Your task to perform on an android device: see tabs open on other devices in the chrome app Image 0: 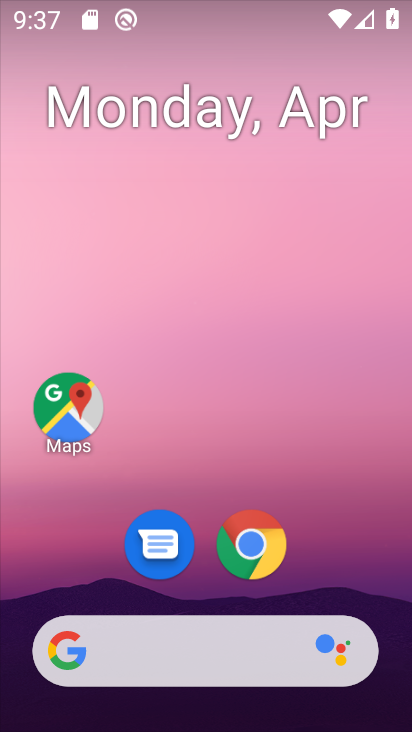
Step 0: click (251, 538)
Your task to perform on an android device: see tabs open on other devices in the chrome app Image 1: 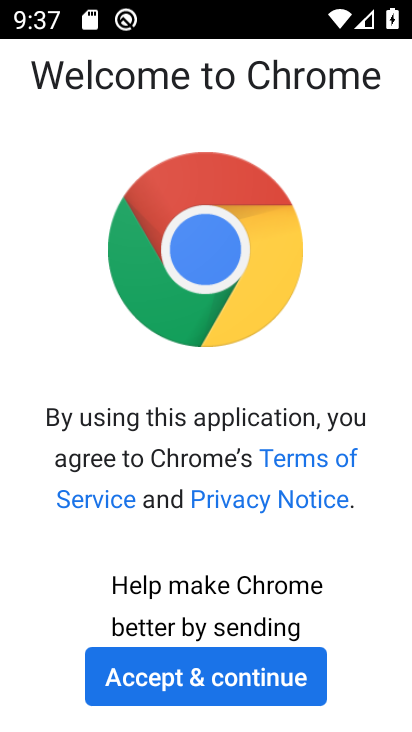
Step 1: click (202, 679)
Your task to perform on an android device: see tabs open on other devices in the chrome app Image 2: 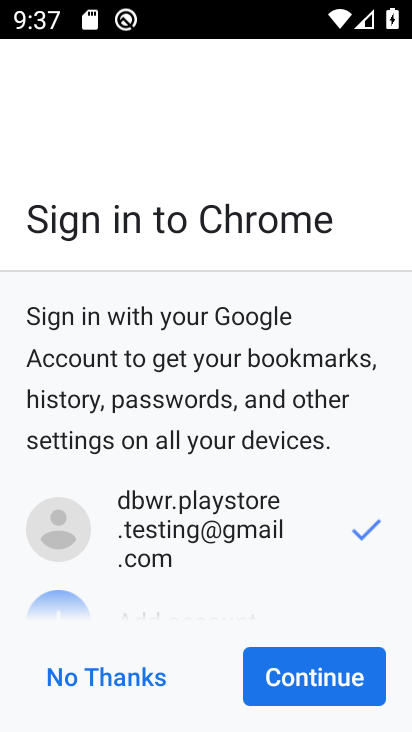
Step 2: click (324, 674)
Your task to perform on an android device: see tabs open on other devices in the chrome app Image 3: 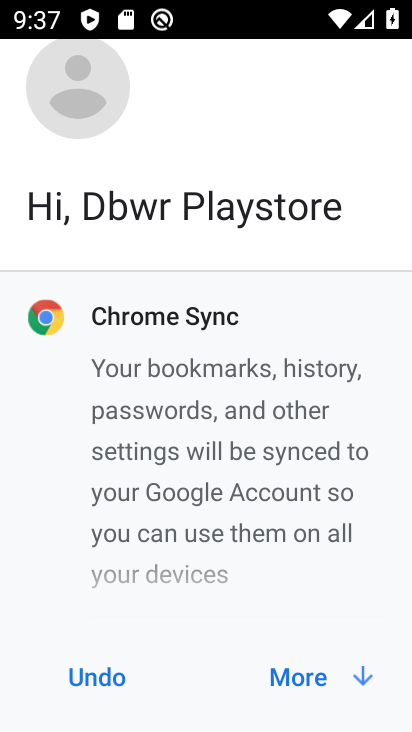
Step 3: click (324, 674)
Your task to perform on an android device: see tabs open on other devices in the chrome app Image 4: 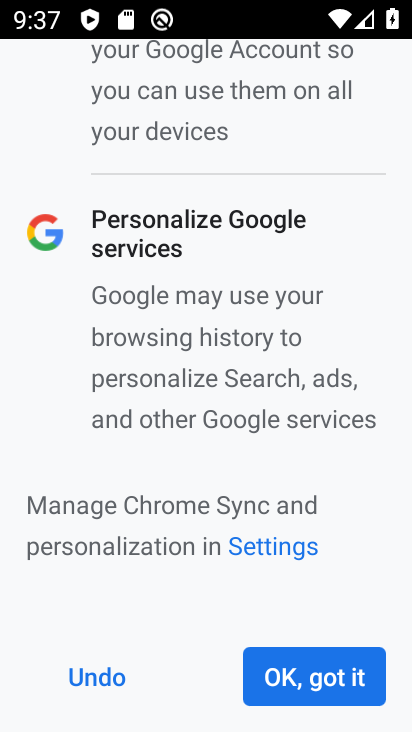
Step 4: click (324, 674)
Your task to perform on an android device: see tabs open on other devices in the chrome app Image 5: 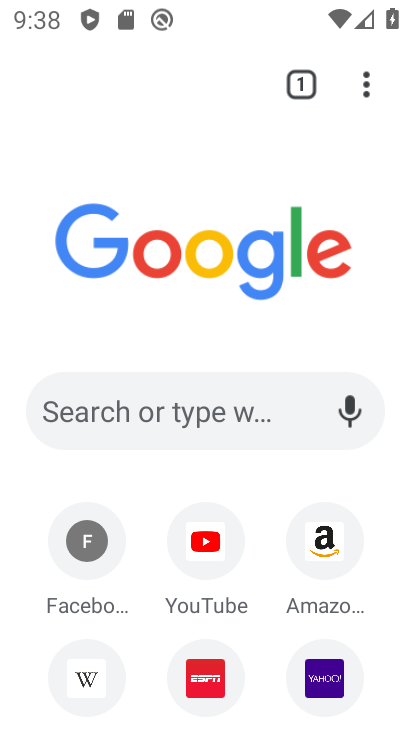
Step 5: click (366, 78)
Your task to perform on an android device: see tabs open on other devices in the chrome app Image 6: 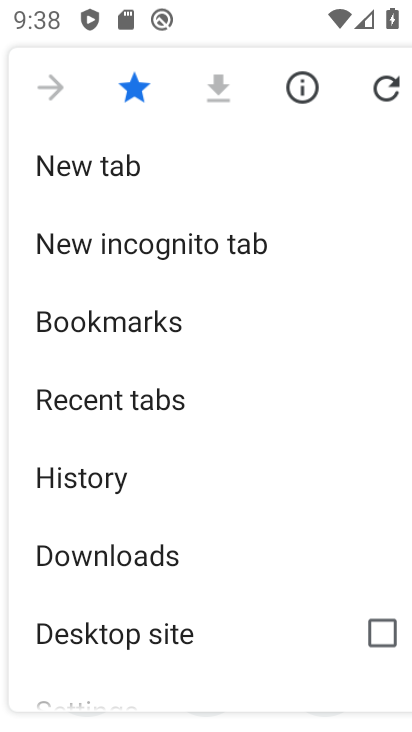
Step 6: click (196, 389)
Your task to perform on an android device: see tabs open on other devices in the chrome app Image 7: 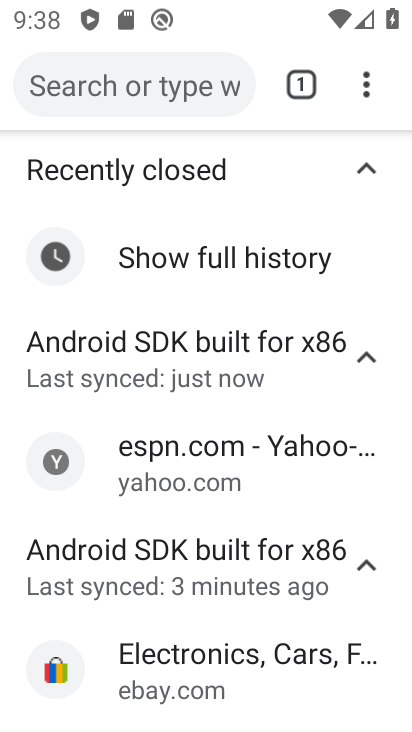
Step 7: task complete